Your task to perform on an android device: set default search engine in the chrome app Image 0: 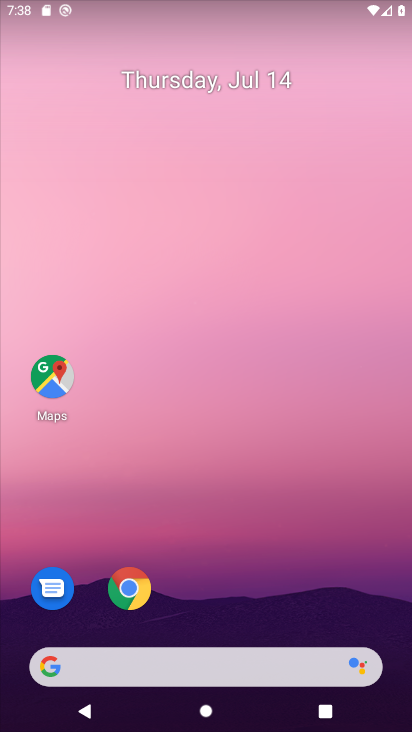
Step 0: drag from (355, 611) to (349, 145)
Your task to perform on an android device: set default search engine in the chrome app Image 1: 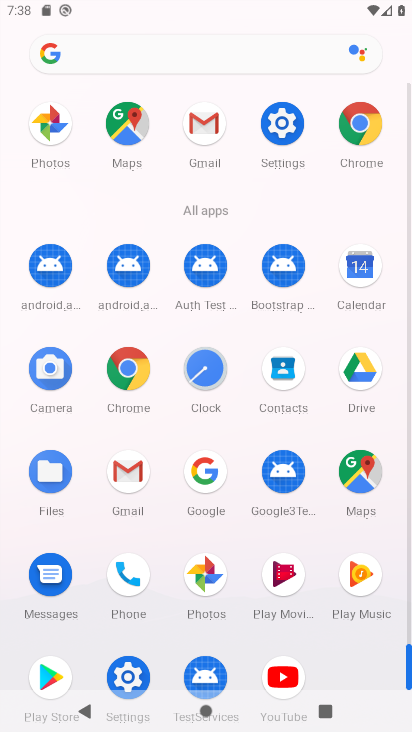
Step 1: click (129, 372)
Your task to perform on an android device: set default search engine in the chrome app Image 2: 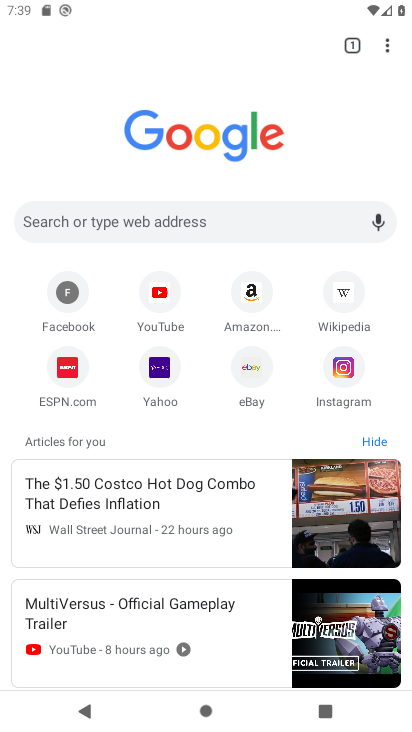
Step 2: click (388, 53)
Your task to perform on an android device: set default search engine in the chrome app Image 3: 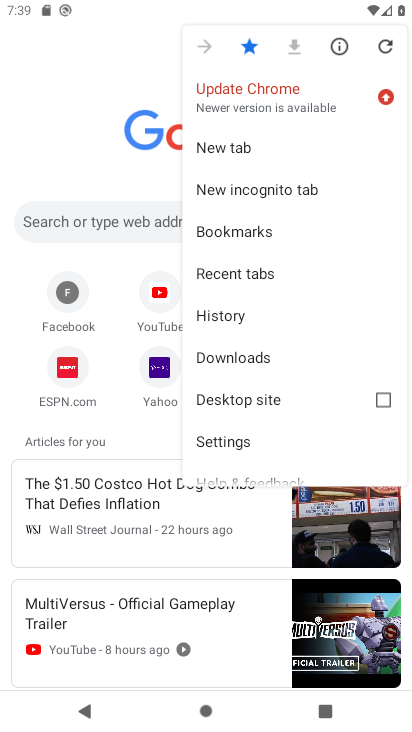
Step 3: click (236, 446)
Your task to perform on an android device: set default search engine in the chrome app Image 4: 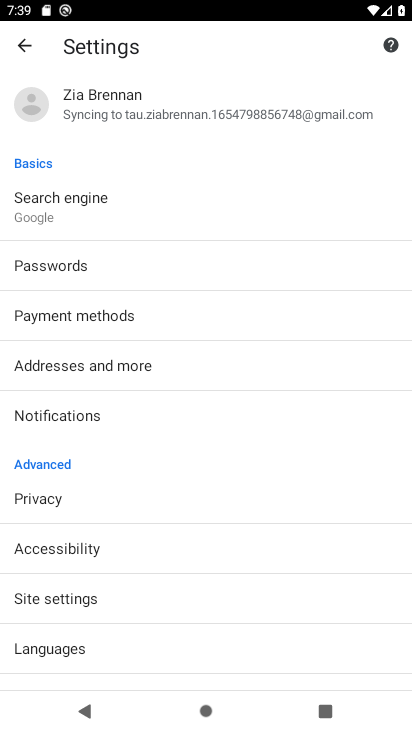
Step 4: drag from (291, 562) to (307, 487)
Your task to perform on an android device: set default search engine in the chrome app Image 5: 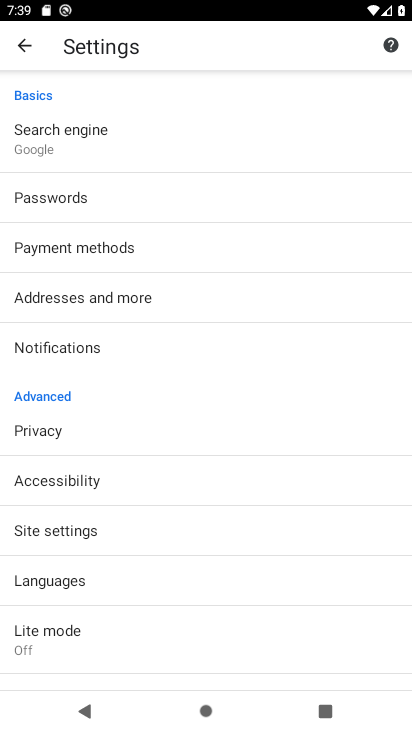
Step 5: drag from (303, 593) to (307, 510)
Your task to perform on an android device: set default search engine in the chrome app Image 6: 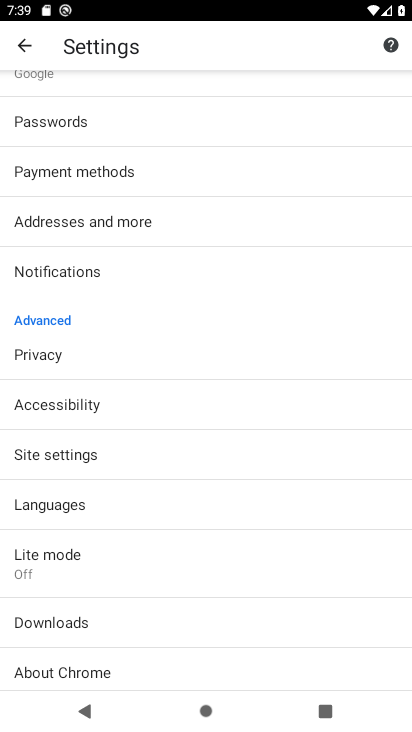
Step 6: drag from (288, 595) to (286, 501)
Your task to perform on an android device: set default search engine in the chrome app Image 7: 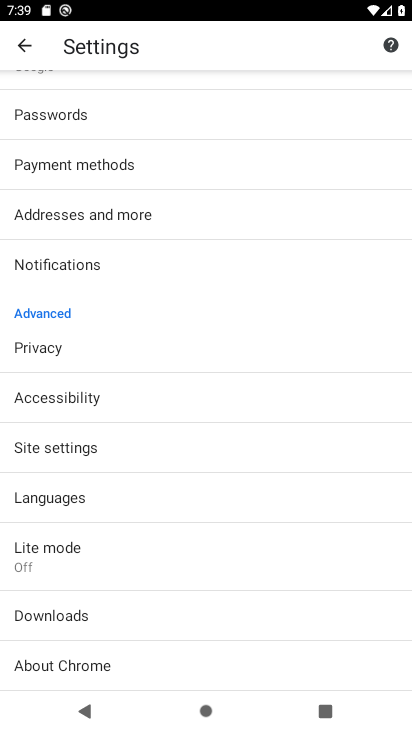
Step 7: drag from (286, 409) to (287, 459)
Your task to perform on an android device: set default search engine in the chrome app Image 8: 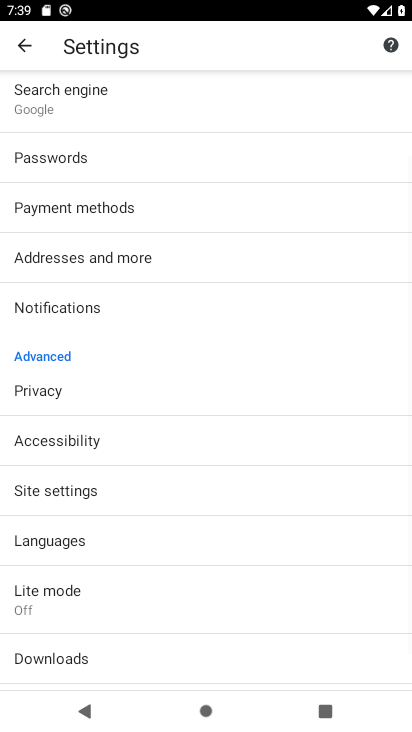
Step 8: drag from (296, 395) to (295, 470)
Your task to perform on an android device: set default search engine in the chrome app Image 9: 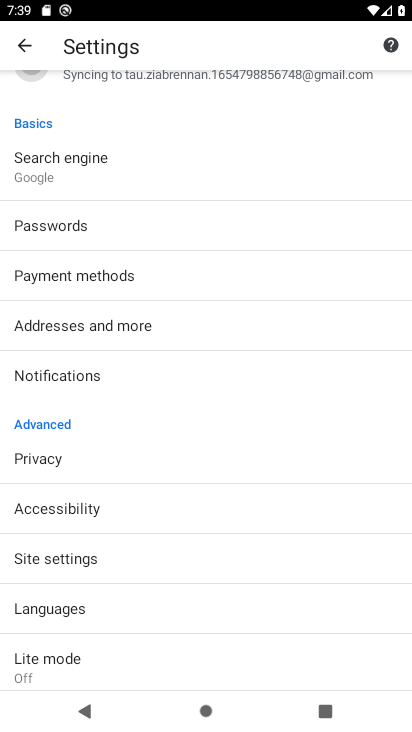
Step 9: drag from (298, 377) to (298, 472)
Your task to perform on an android device: set default search engine in the chrome app Image 10: 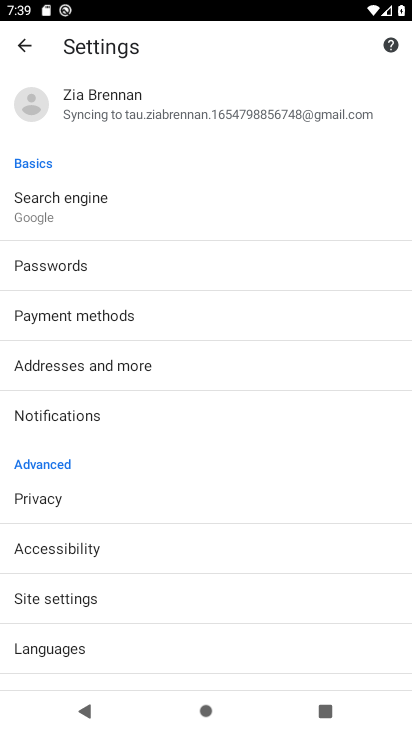
Step 10: click (167, 210)
Your task to perform on an android device: set default search engine in the chrome app Image 11: 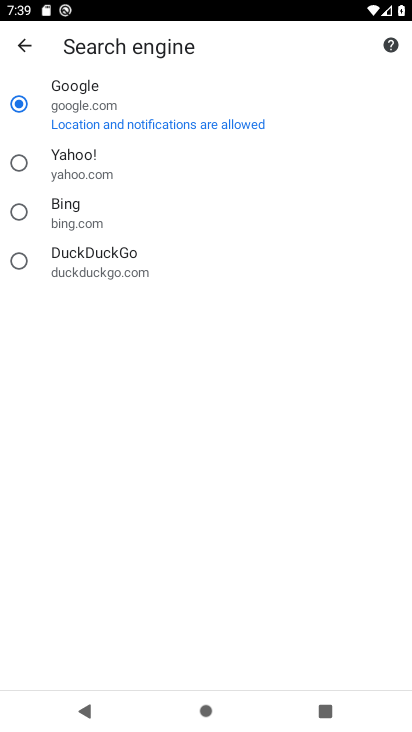
Step 11: click (88, 217)
Your task to perform on an android device: set default search engine in the chrome app Image 12: 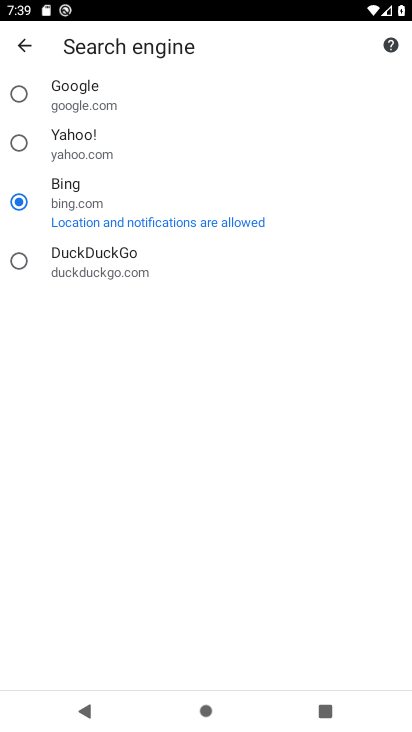
Step 12: task complete